Your task to perform on an android device: Go to Google Image 0: 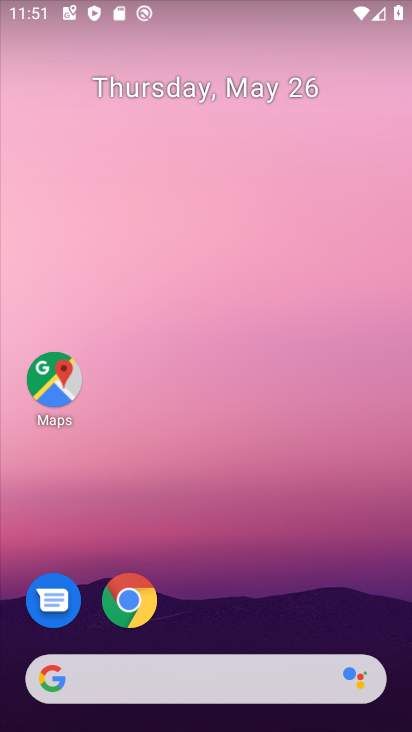
Step 0: click (289, 685)
Your task to perform on an android device: Go to Google Image 1: 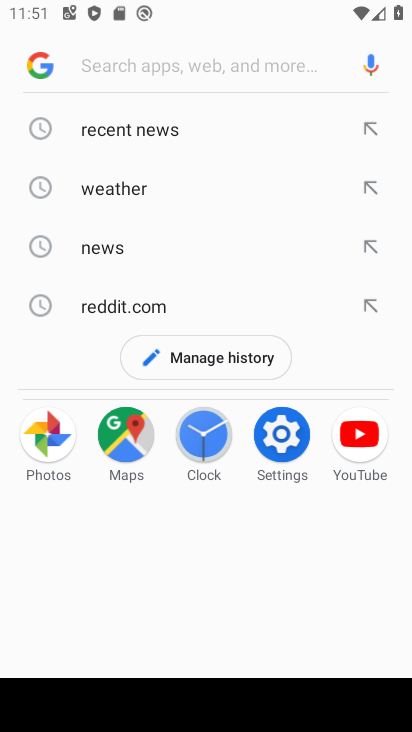
Step 1: task complete